Your task to perform on an android device: What is the capital of China? Image 0: 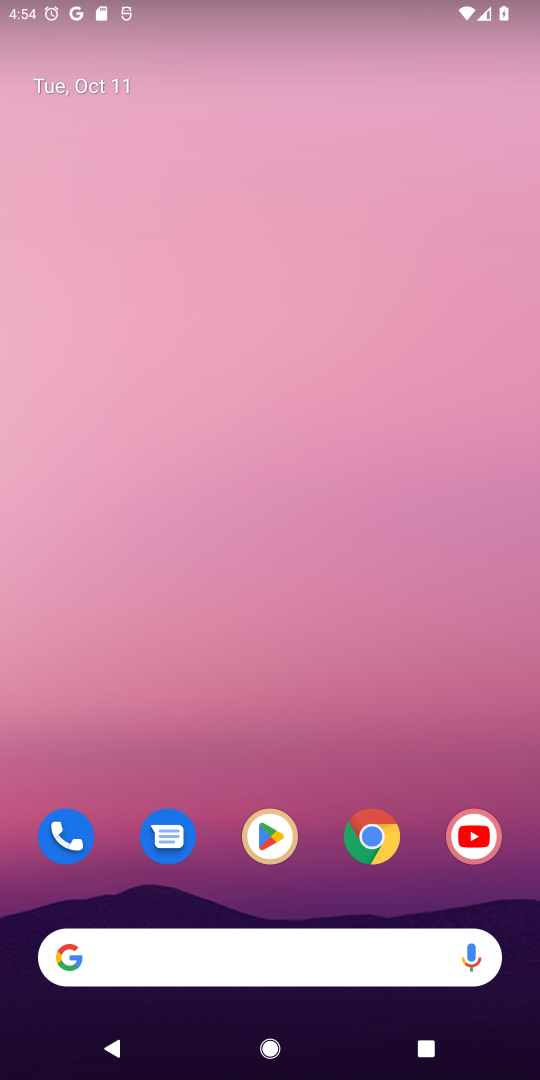
Step 0: task complete